Your task to perform on an android device: change the clock display to show seconds Image 0: 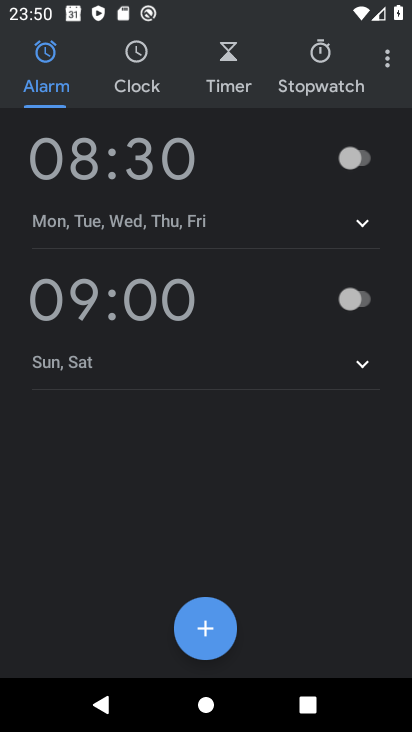
Step 0: press home button
Your task to perform on an android device: change the clock display to show seconds Image 1: 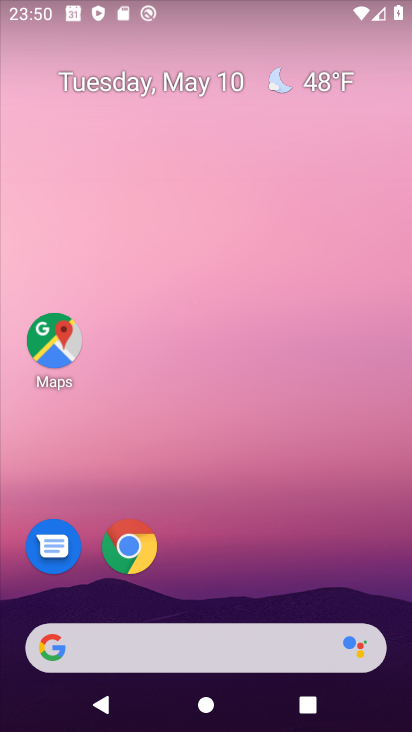
Step 1: drag from (220, 597) to (228, 189)
Your task to perform on an android device: change the clock display to show seconds Image 2: 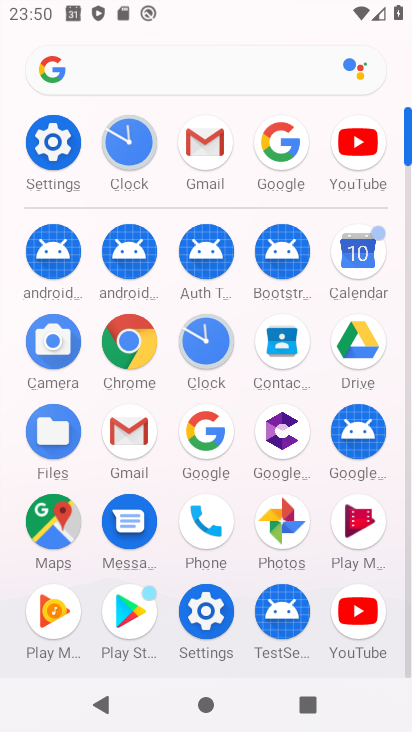
Step 2: click (133, 146)
Your task to perform on an android device: change the clock display to show seconds Image 3: 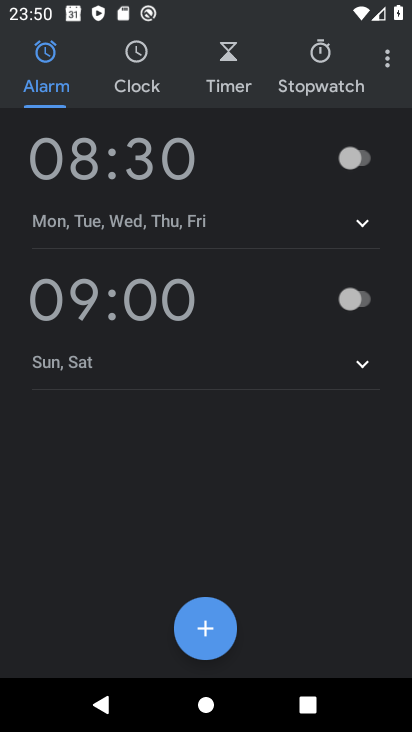
Step 3: click (395, 58)
Your task to perform on an android device: change the clock display to show seconds Image 4: 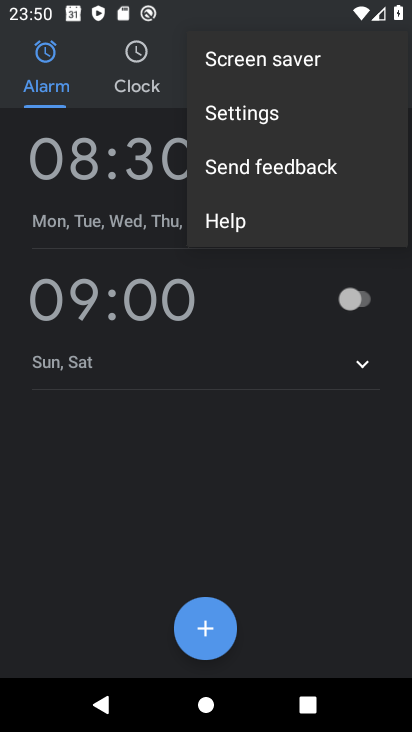
Step 4: click (301, 126)
Your task to perform on an android device: change the clock display to show seconds Image 5: 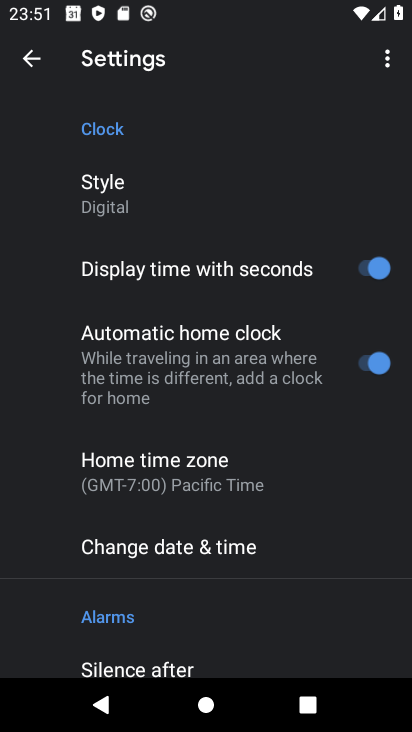
Step 5: task complete